Your task to perform on an android device: all mails in gmail Image 0: 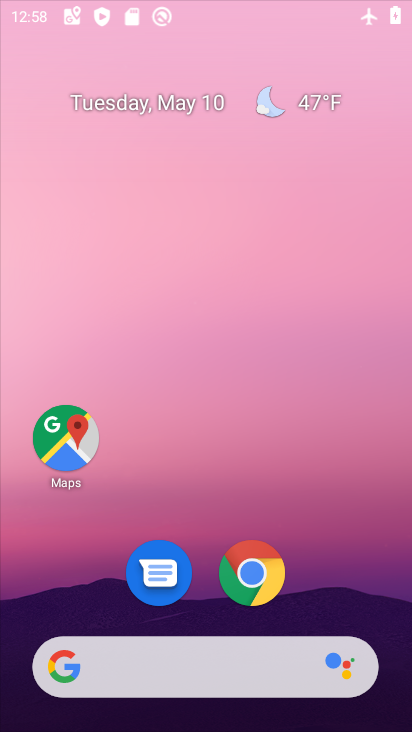
Step 0: click (200, 340)
Your task to perform on an android device: all mails in gmail Image 1: 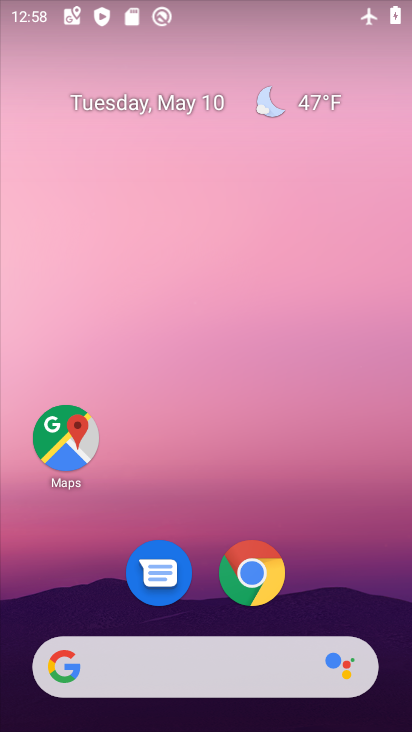
Step 1: drag from (199, 646) to (264, 240)
Your task to perform on an android device: all mails in gmail Image 2: 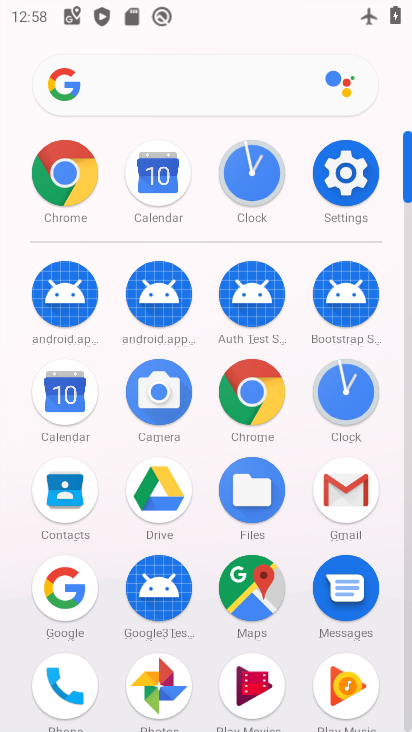
Step 2: click (350, 483)
Your task to perform on an android device: all mails in gmail Image 3: 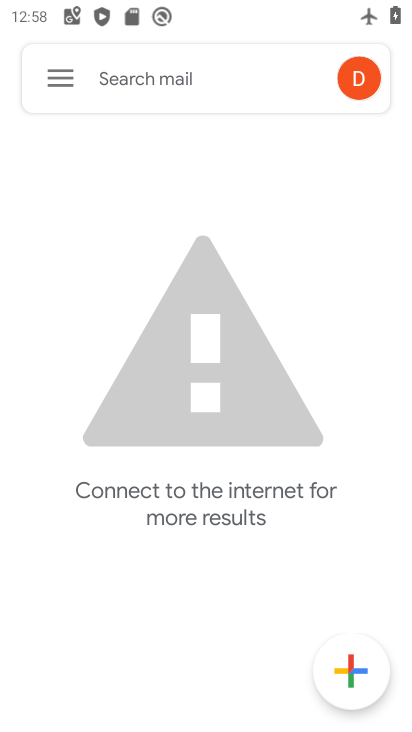
Step 3: click (46, 82)
Your task to perform on an android device: all mails in gmail Image 4: 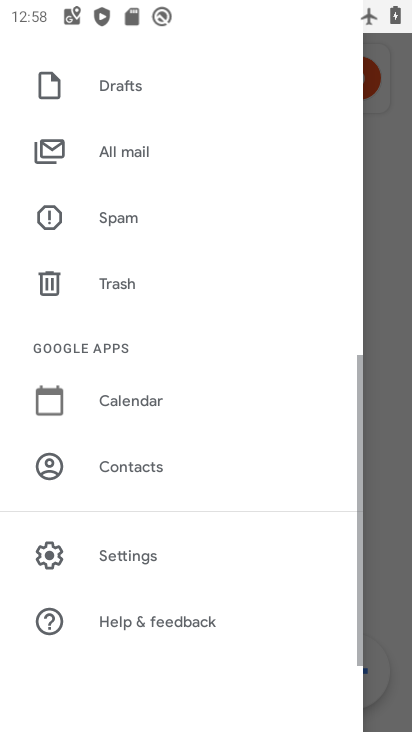
Step 4: drag from (170, 591) to (245, 188)
Your task to perform on an android device: all mails in gmail Image 5: 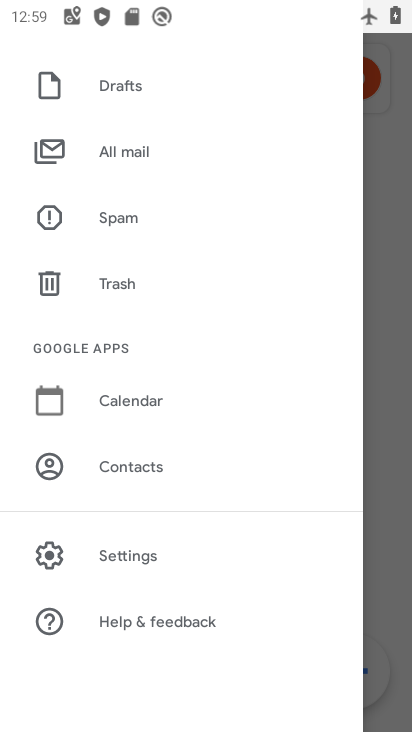
Step 5: click (180, 161)
Your task to perform on an android device: all mails in gmail Image 6: 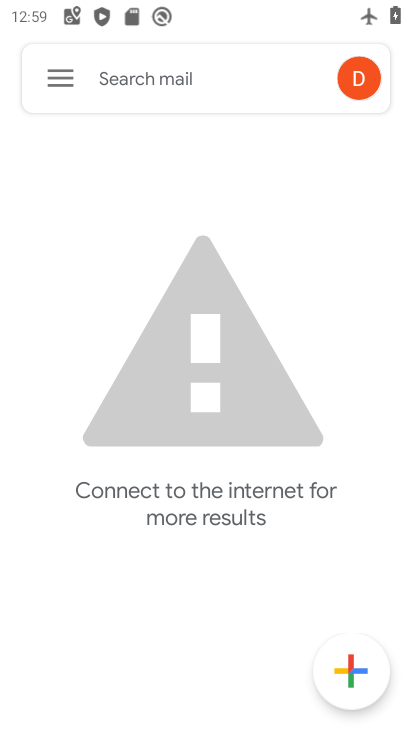
Step 6: drag from (216, 523) to (362, 337)
Your task to perform on an android device: all mails in gmail Image 7: 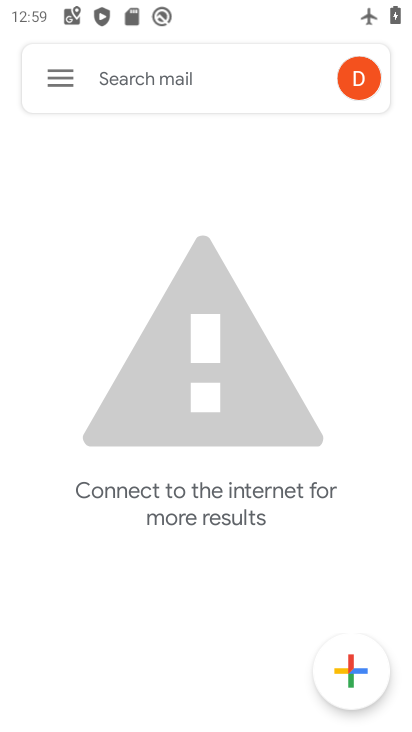
Step 7: drag from (211, 584) to (253, 280)
Your task to perform on an android device: all mails in gmail Image 8: 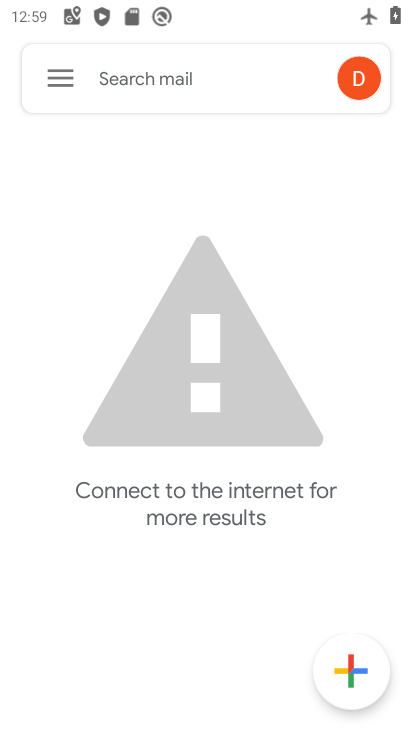
Step 8: click (215, 253)
Your task to perform on an android device: all mails in gmail Image 9: 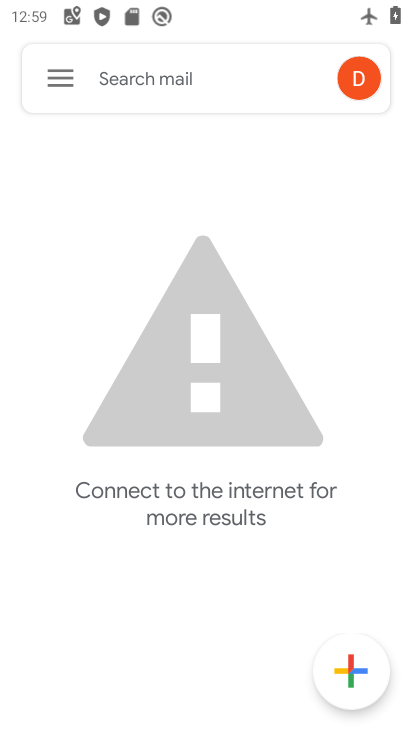
Step 9: click (170, 537)
Your task to perform on an android device: all mails in gmail Image 10: 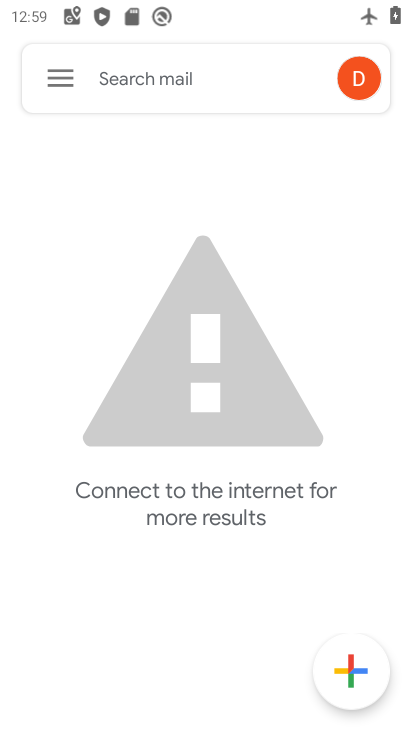
Step 10: click (163, 527)
Your task to perform on an android device: all mails in gmail Image 11: 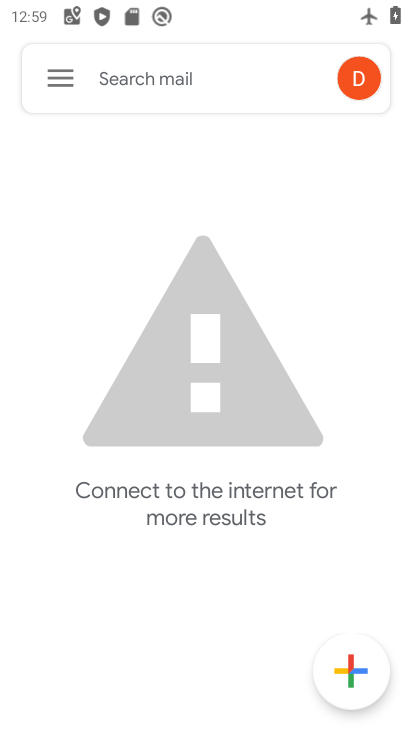
Step 11: click (46, 88)
Your task to perform on an android device: all mails in gmail Image 12: 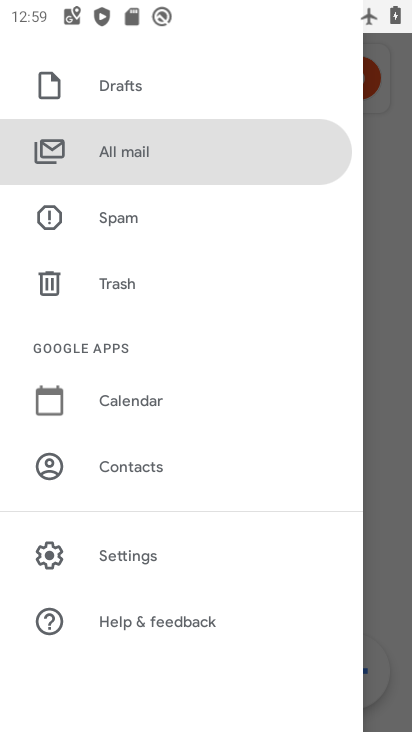
Step 12: task complete